Your task to perform on an android device: open app "Move to iOS" (install if not already installed) and enter user name: "Decca@icloud.com" and password: "reabbreviate" Image 0: 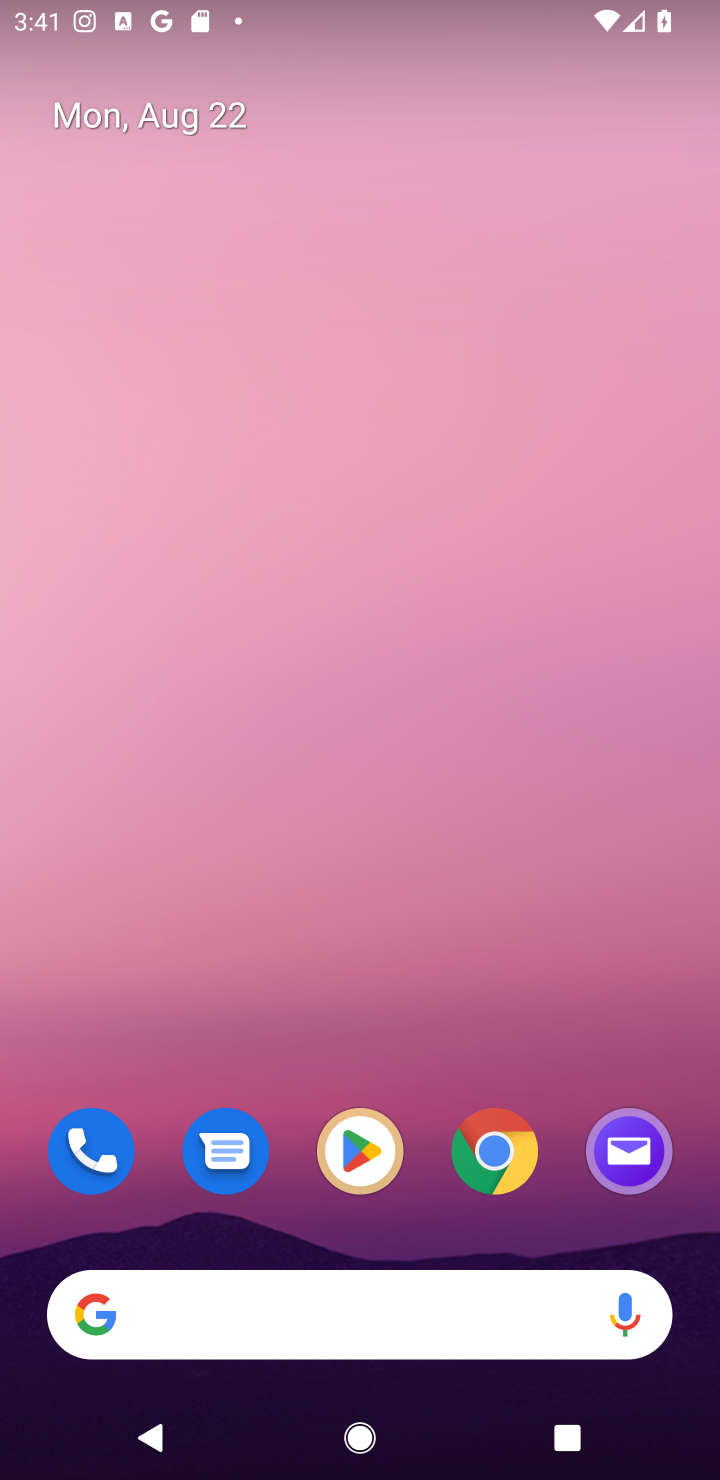
Step 0: press home button
Your task to perform on an android device: open app "Move to iOS" (install if not already installed) and enter user name: "Decca@icloud.com" and password: "reabbreviate" Image 1: 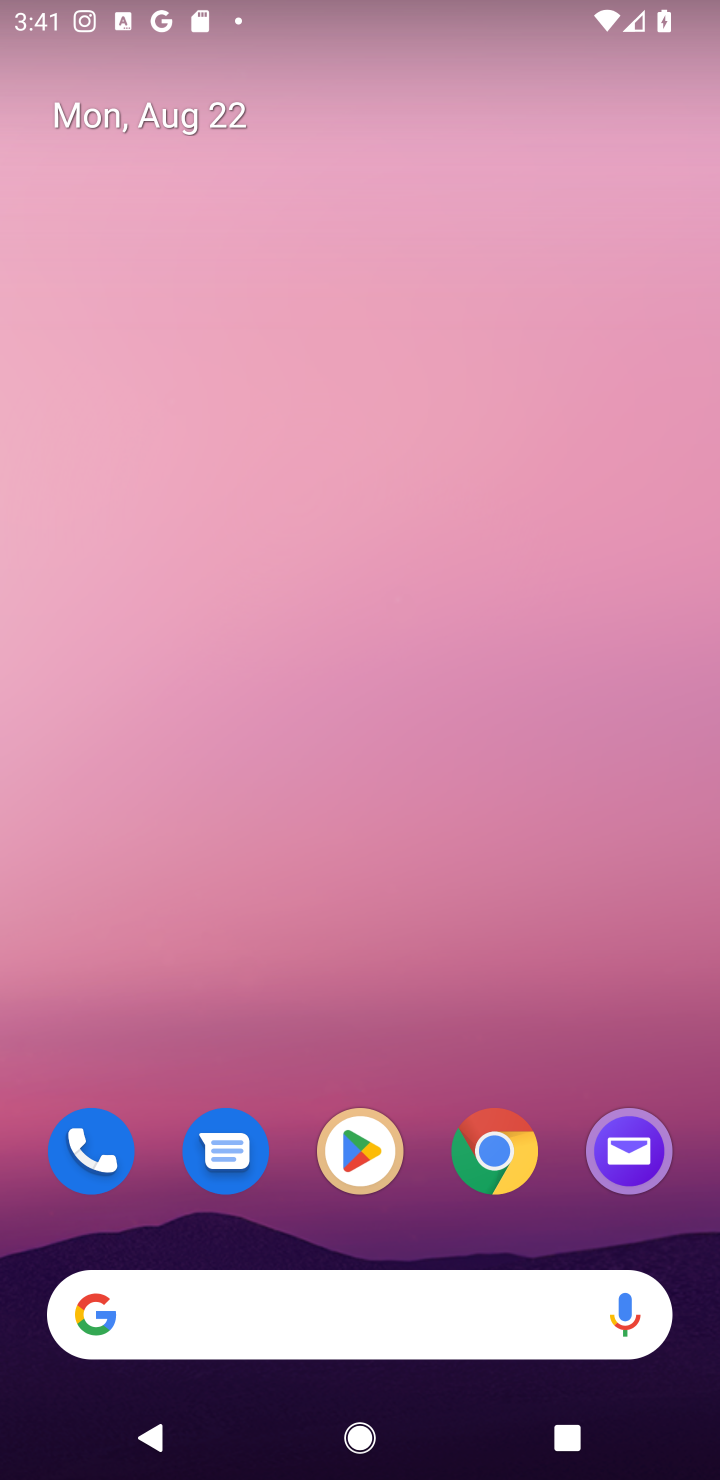
Step 1: click (361, 1152)
Your task to perform on an android device: open app "Move to iOS" (install if not already installed) and enter user name: "Decca@icloud.com" and password: "reabbreviate" Image 2: 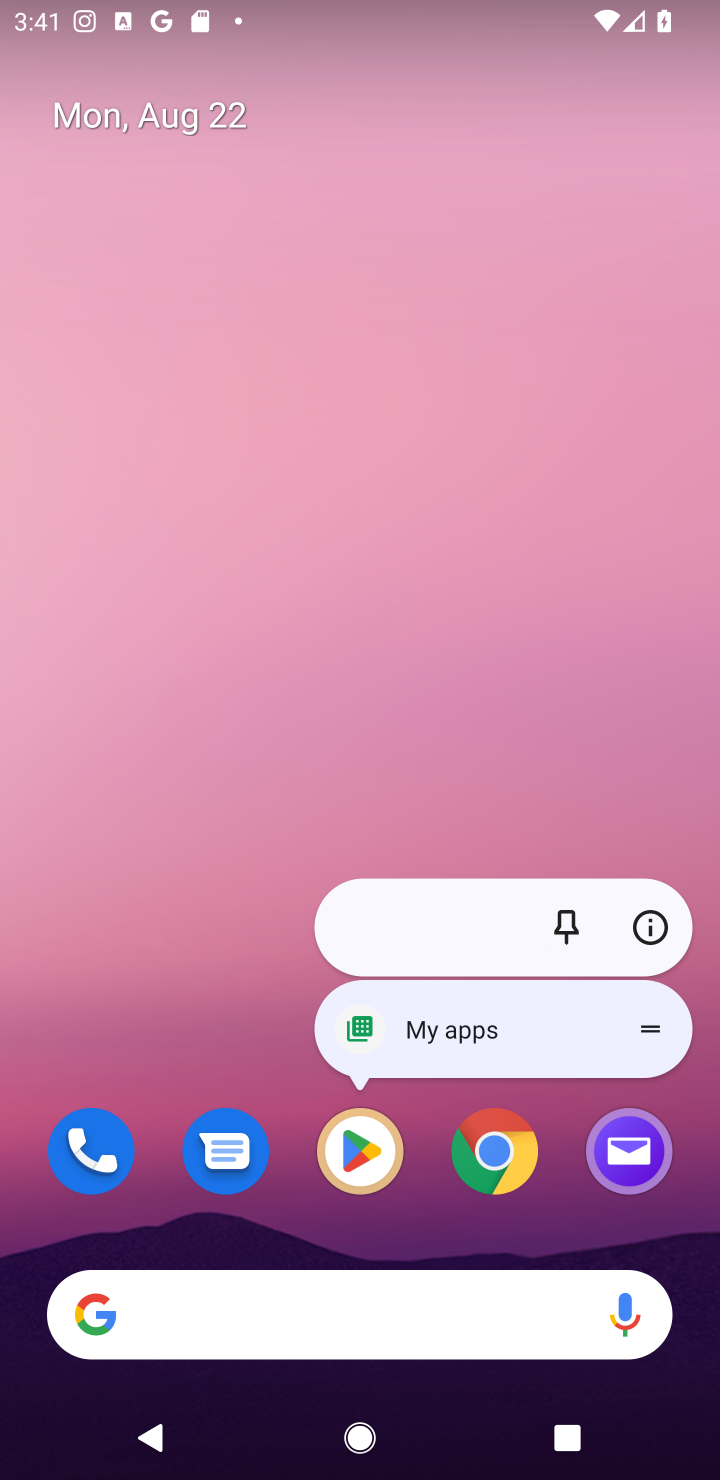
Step 2: click (361, 1152)
Your task to perform on an android device: open app "Move to iOS" (install if not already installed) and enter user name: "Decca@icloud.com" and password: "reabbreviate" Image 3: 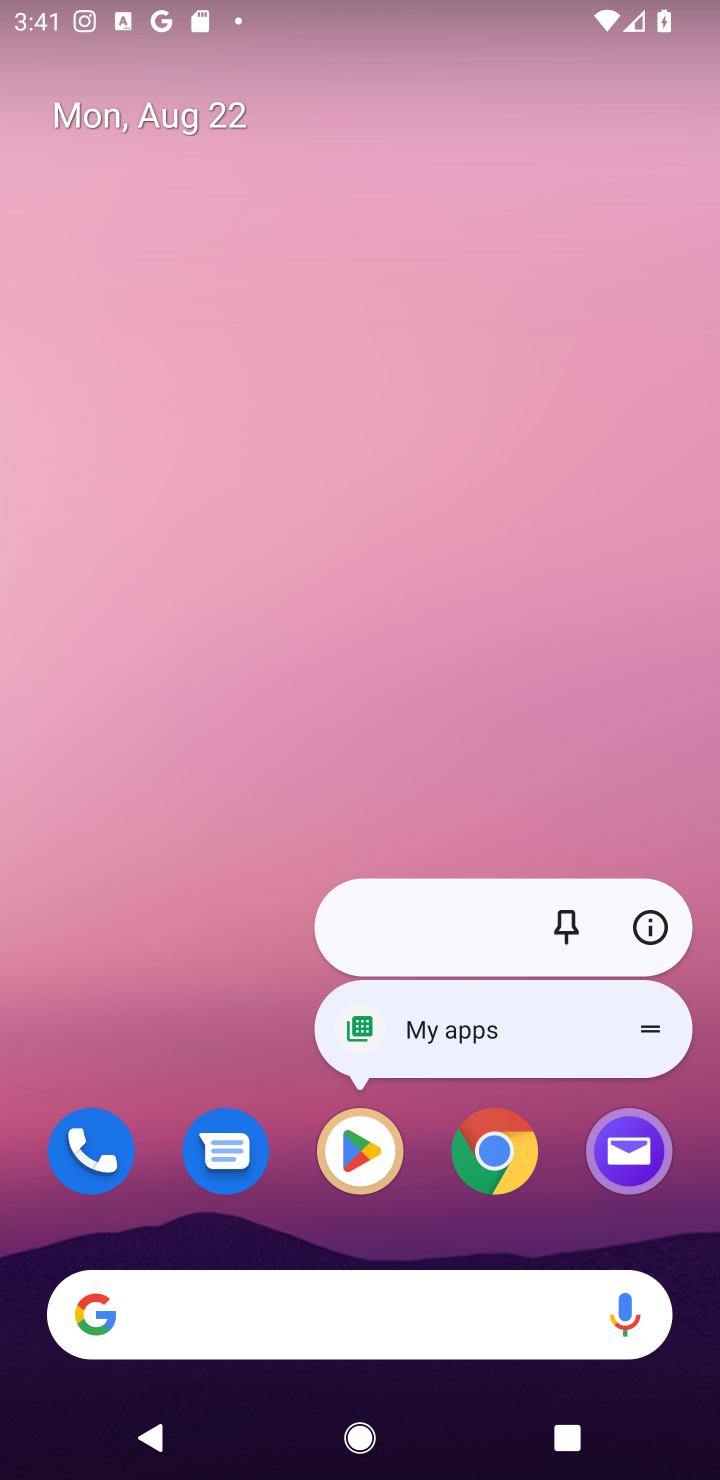
Step 3: click (361, 1152)
Your task to perform on an android device: open app "Move to iOS" (install if not already installed) and enter user name: "Decca@icloud.com" and password: "reabbreviate" Image 4: 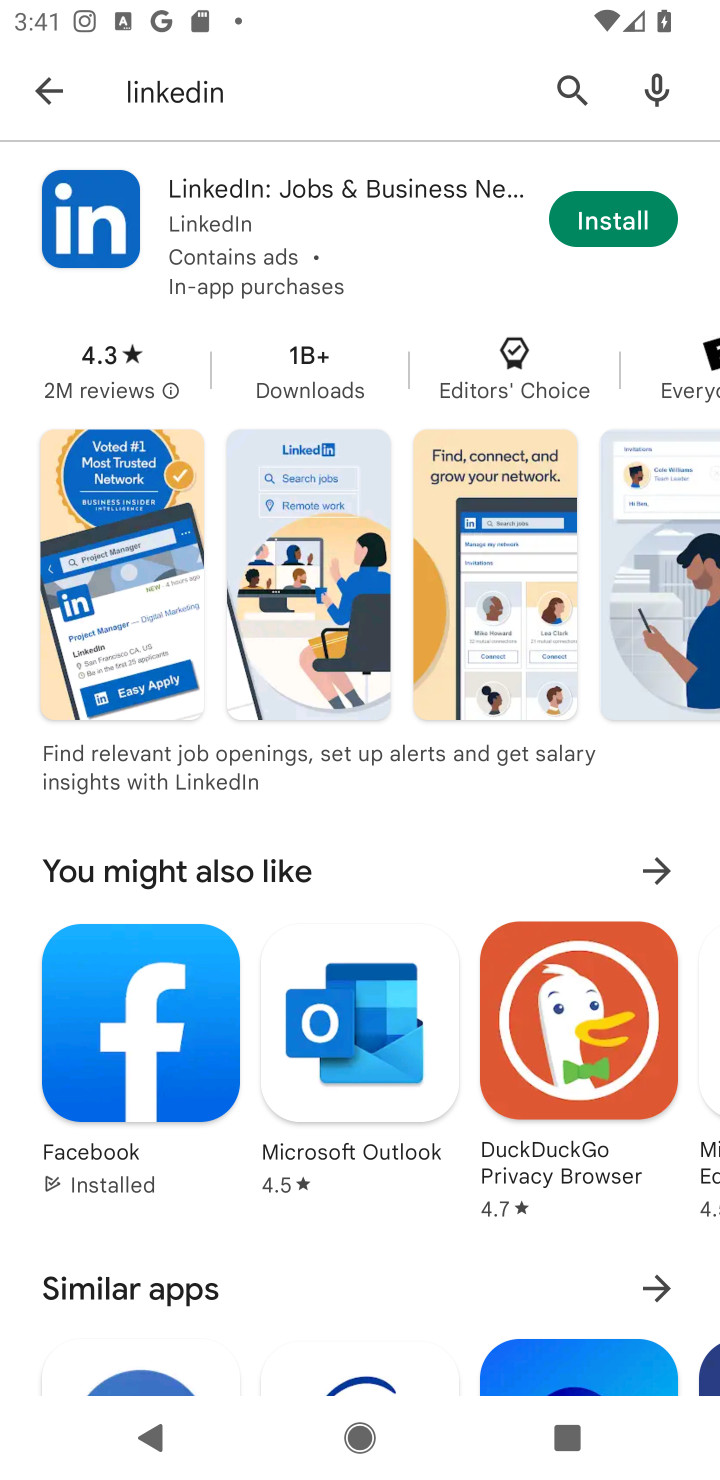
Step 4: click (577, 84)
Your task to perform on an android device: open app "Move to iOS" (install if not already installed) and enter user name: "Decca@icloud.com" and password: "reabbreviate" Image 5: 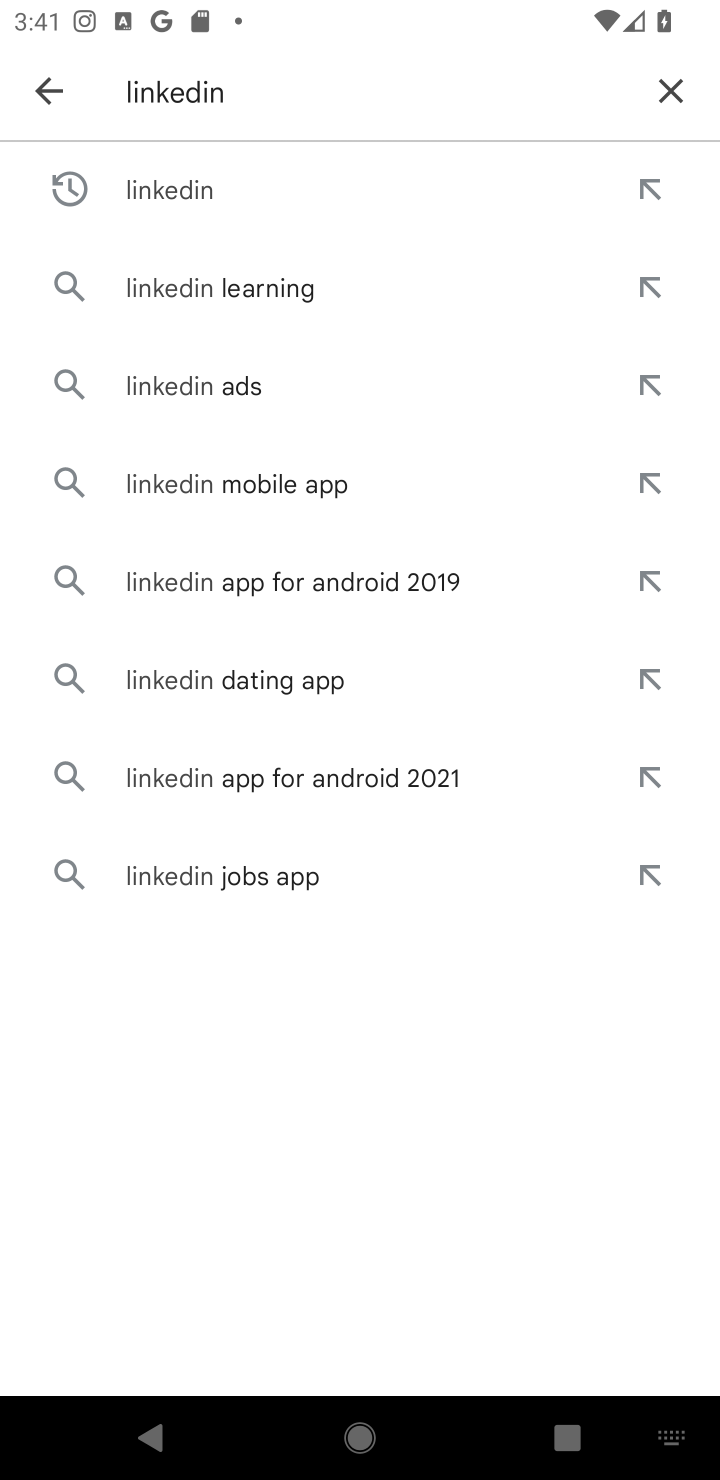
Step 5: click (662, 88)
Your task to perform on an android device: open app "Move to iOS" (install if not already installed) and enter user name: "Decca@icloud.com" and password: "reabbreviate" Image 6: 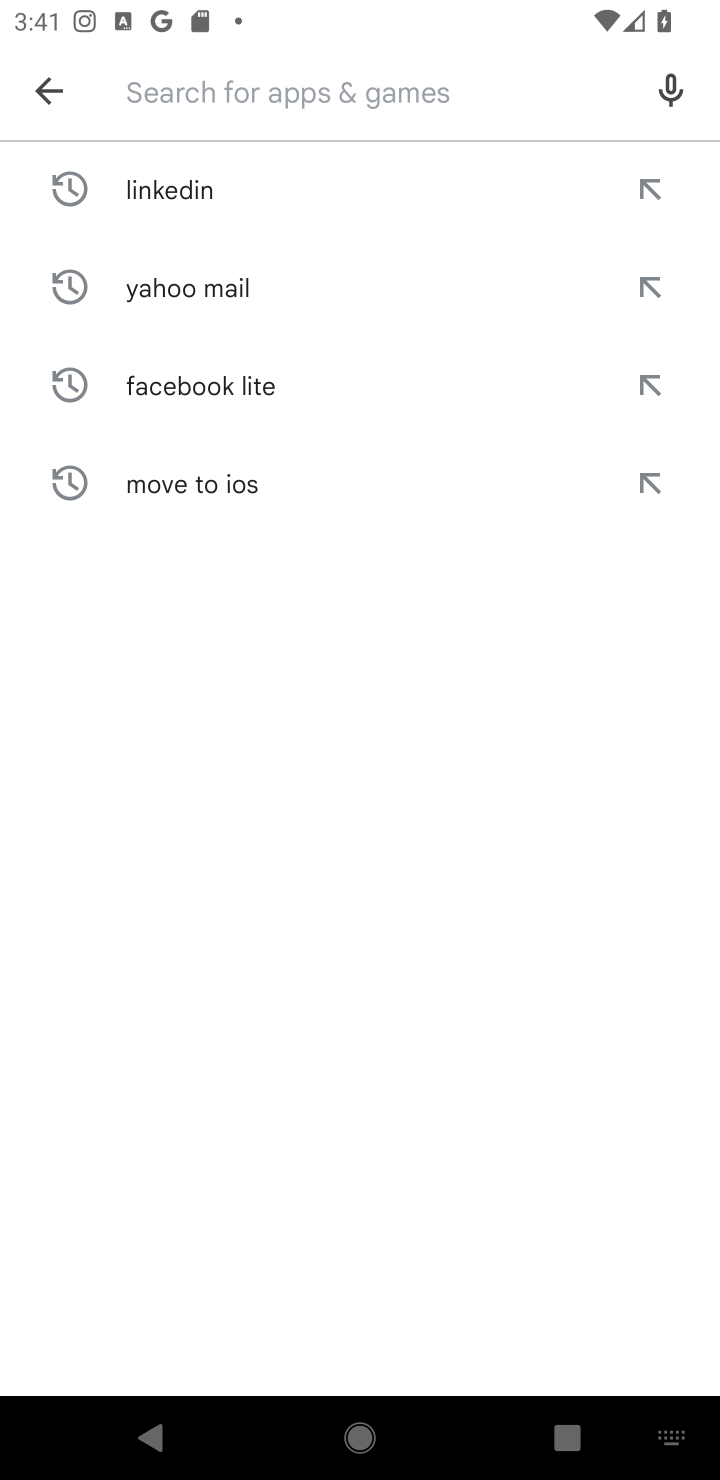
Step 6: type "Move to iOS"
Your task to perform on an android device: open app "Move to iOS" (install if not already installed) and enter user name: "Decca@icloud.com" and password: "reabbreviate" Image 7: 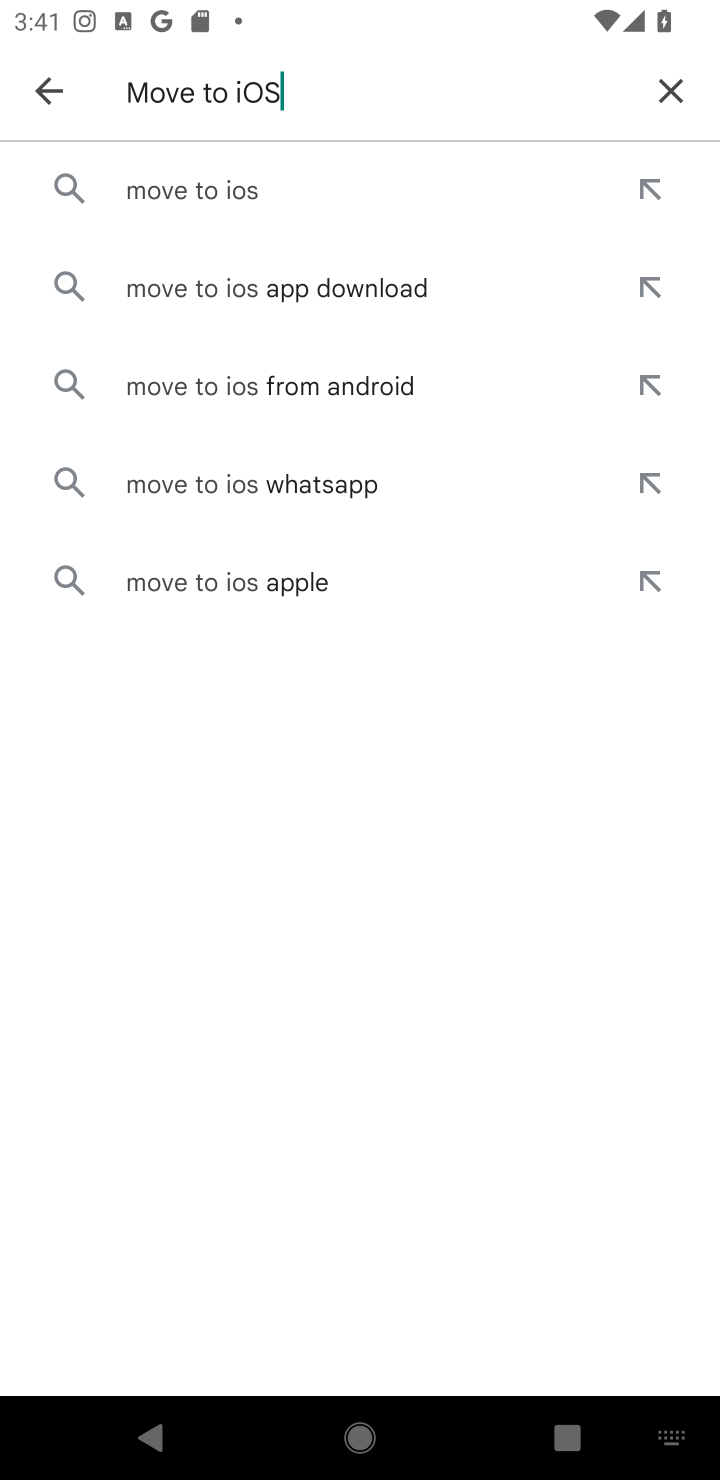
Step 7: click (181, 184)
Your task to perform on an android device: open app "Move to iOS" (install if not already installed) and enter user name: "Decca@icloud.com" and password: "reabbreviate" Image 8: 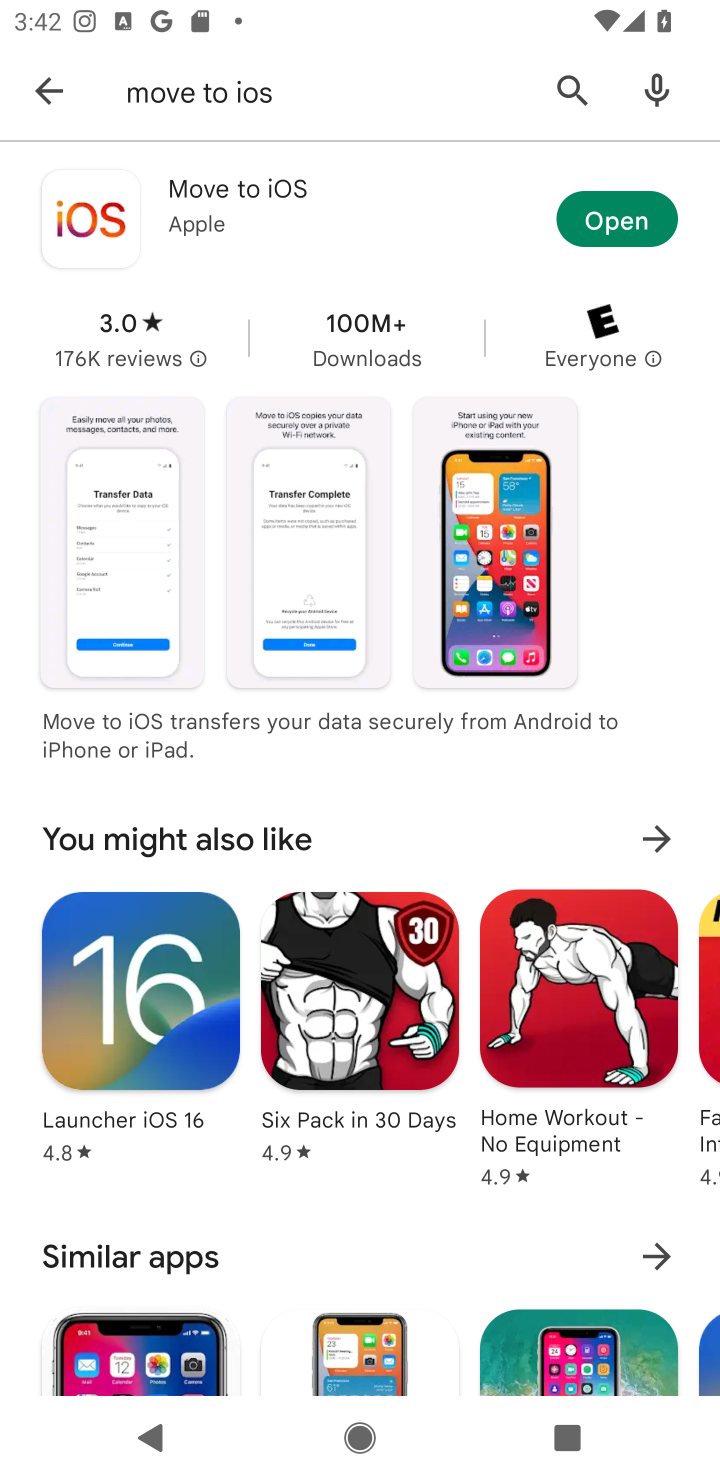
Step 8: click (617, 218)
Your task to perform on an android device: open app "Move to iOS" (install if not already installed) and enter user name: "Decca@icloud.com" and password: "reabbreviate" Image 9: 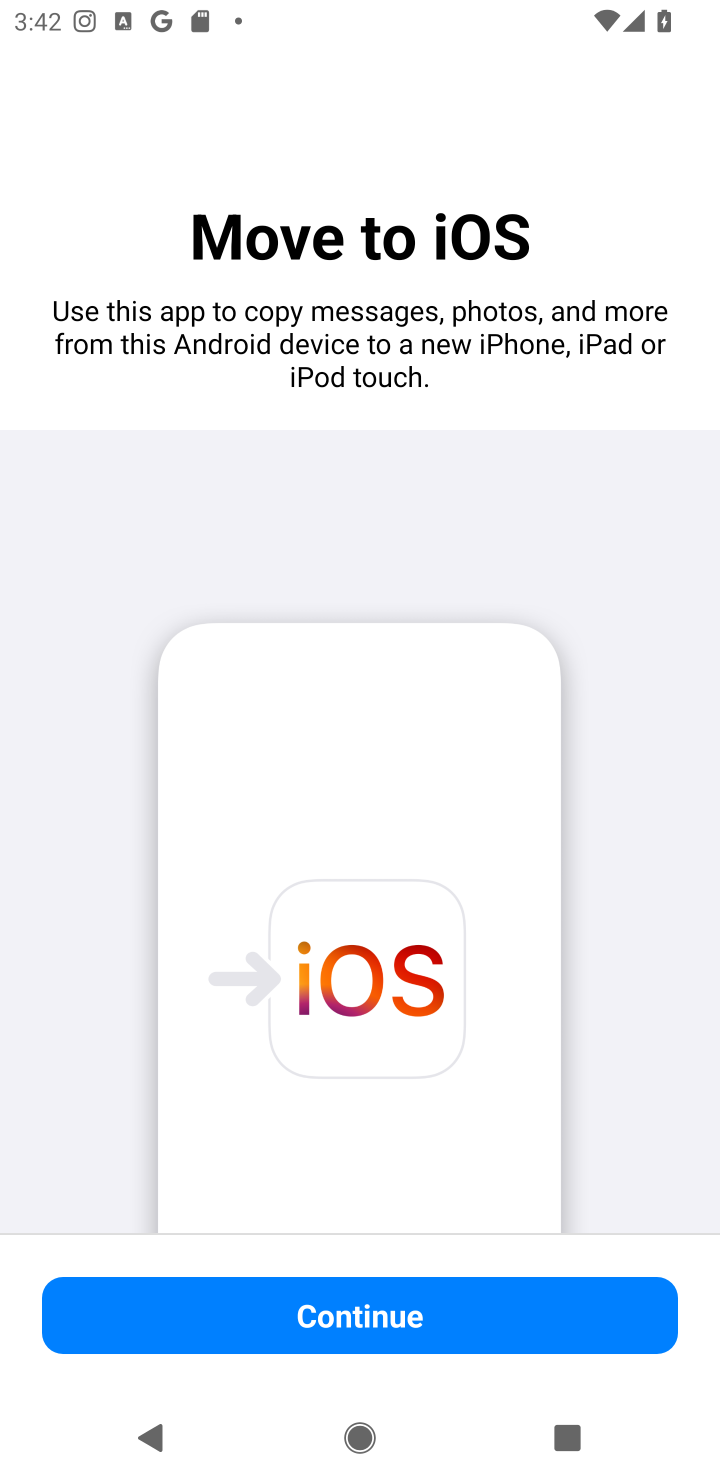
Step 9: click (333, 1310)
Your task to perform on an android device: open app "Move to iOS" (install if not already installed) and enter user name: "Decca@icloud.com" and password: "reabbreviate" Image 10: 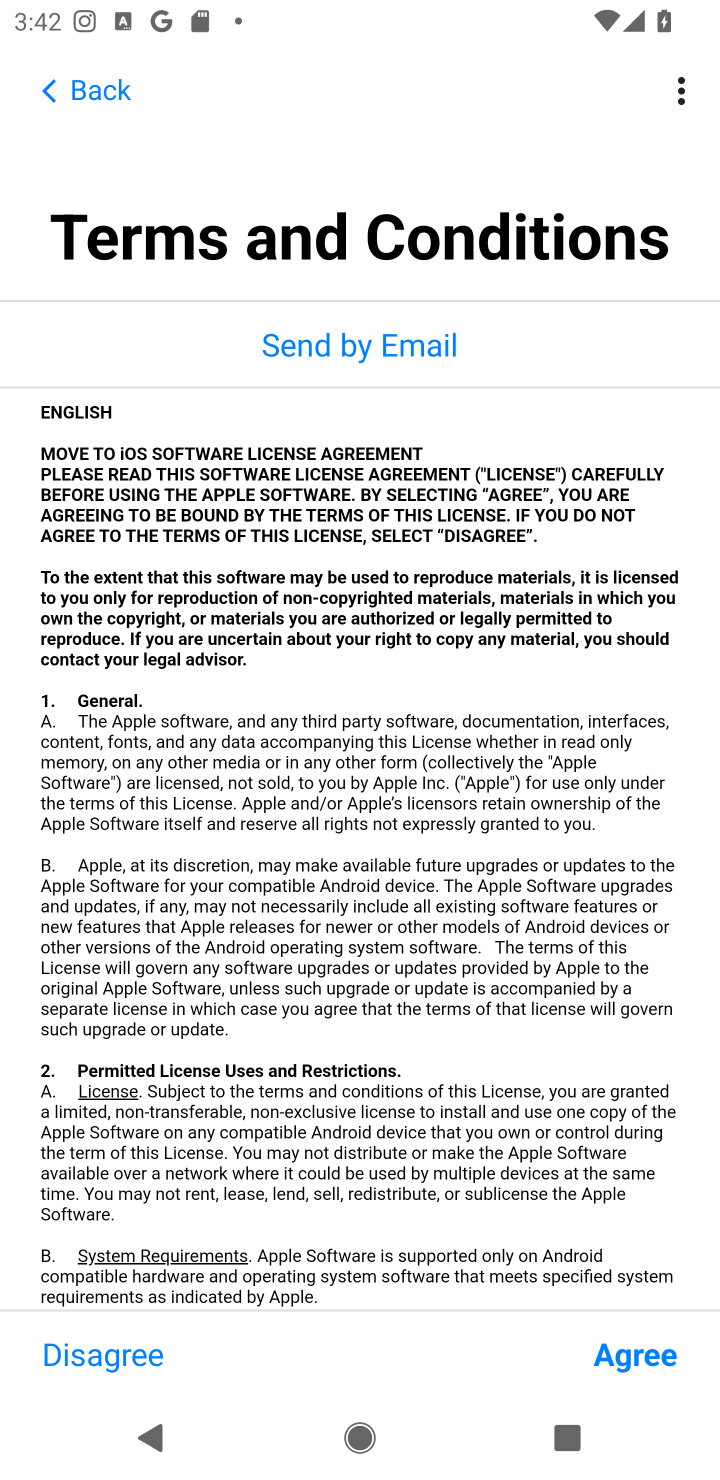
Step 10: click (615, 1348)
Your task to perform on an android device: open app "Move to iOS" (install if not already installed) and enter user name: "Decca@icloud.com" and password: "reabbreviate" Image 11: 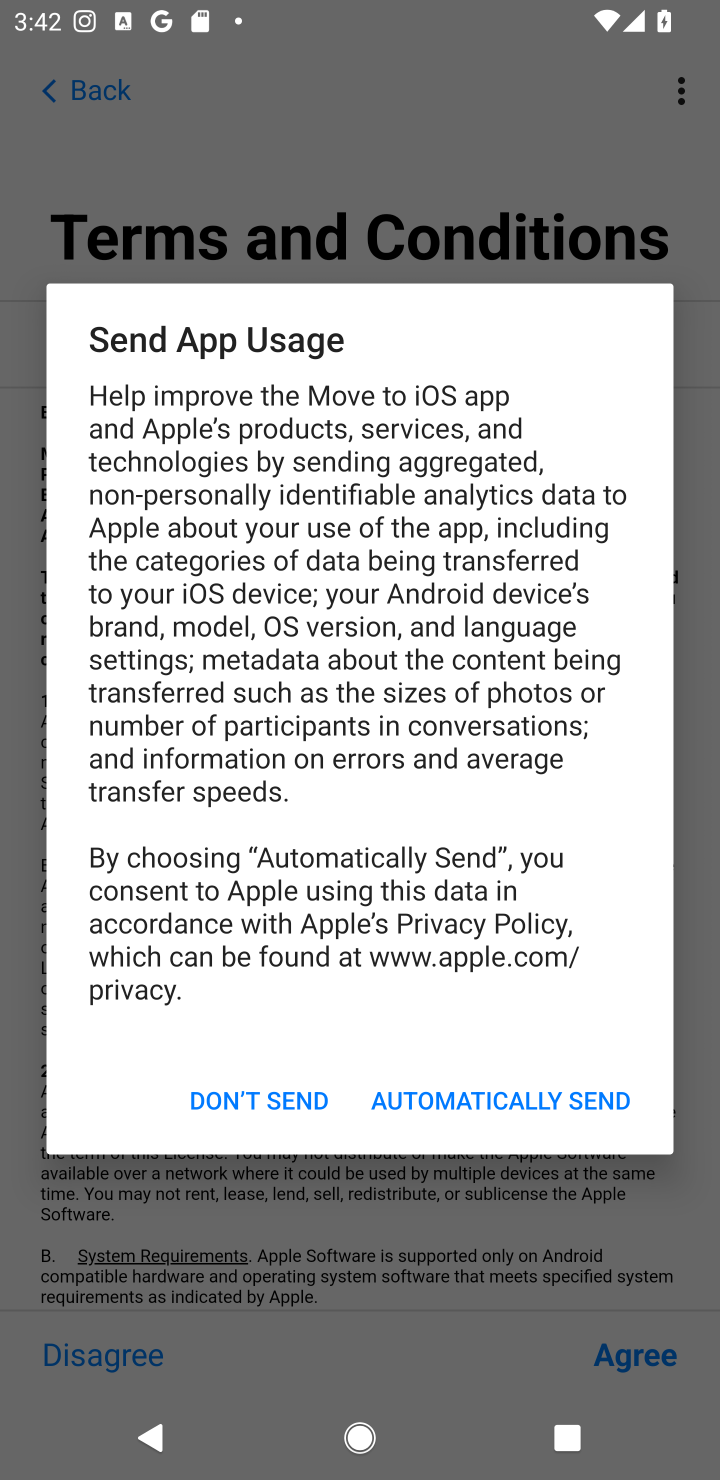
Step 11: click (514, 1123)
Your task to perform on an android device: open app "Move to iOS" (install if not already installed) and enter user name: "Decca@icloud.com" and password: "reabbreviate" Image 12: 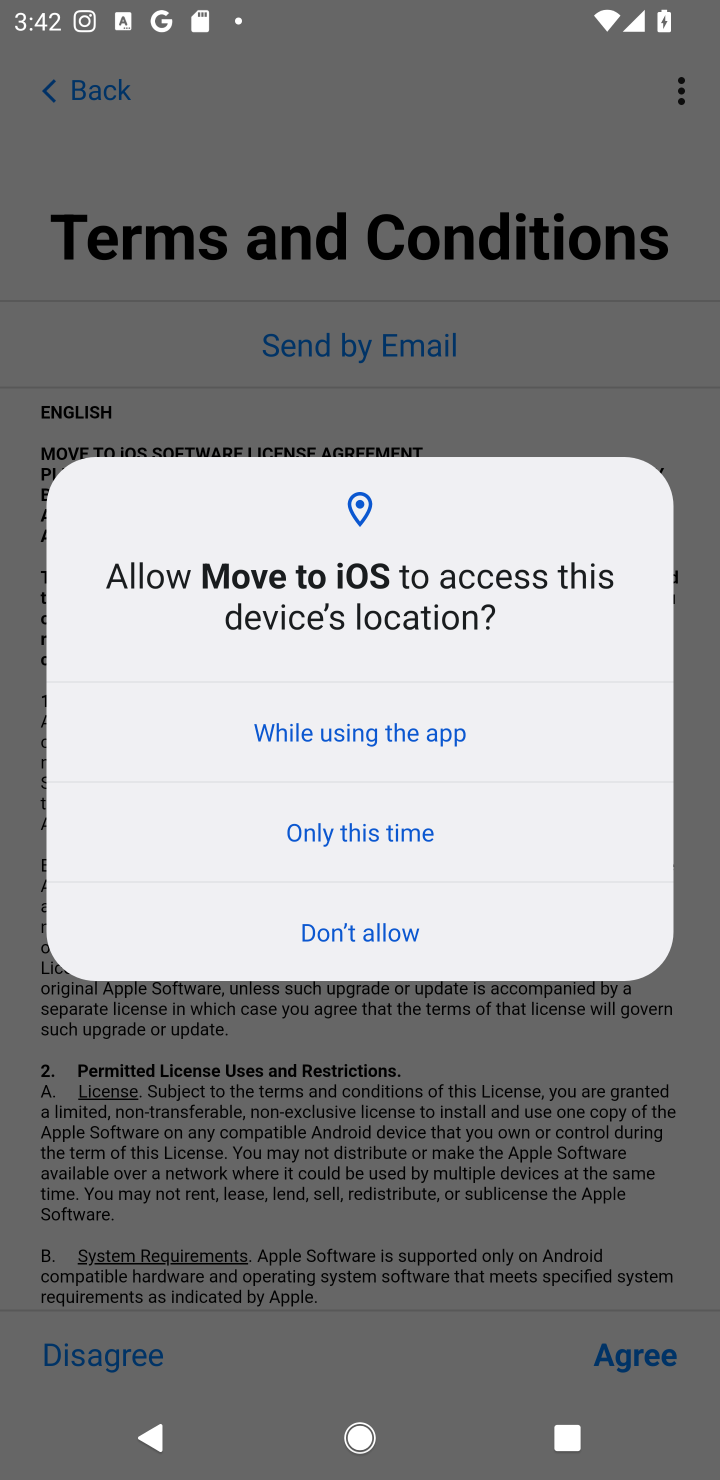
Step 12: click (354, 834)
Your task to perform on an android device: open app "Move to iOS" (install if not already installed) and enter user name: "Decca@icloud.com" and password: "reabbreviate" Image 13: 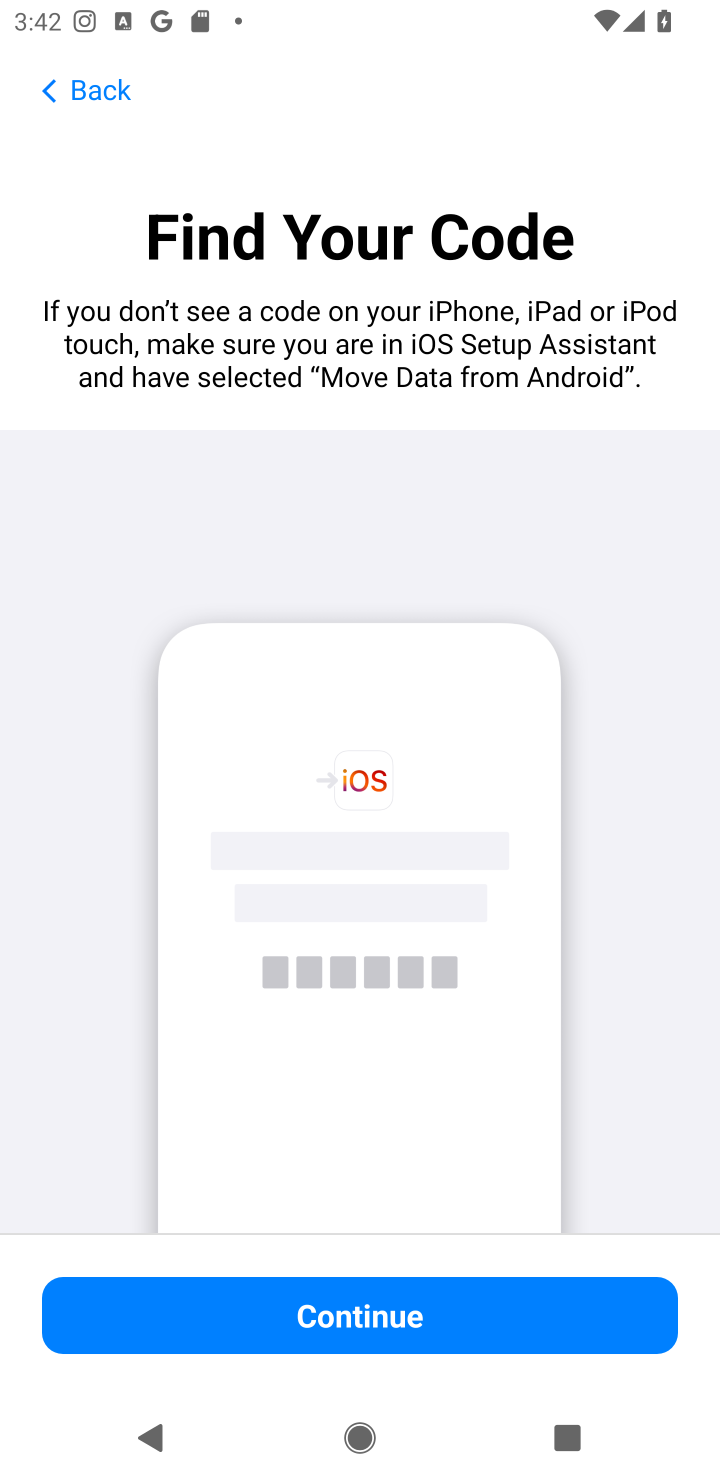
Step 13: click (526, 1324)
Your task to perform on an android device: open app "Move to iOS" (install if not already installed) and enter user name: "Decca@icloud.com" and password: "reabbreviate" Image 14: 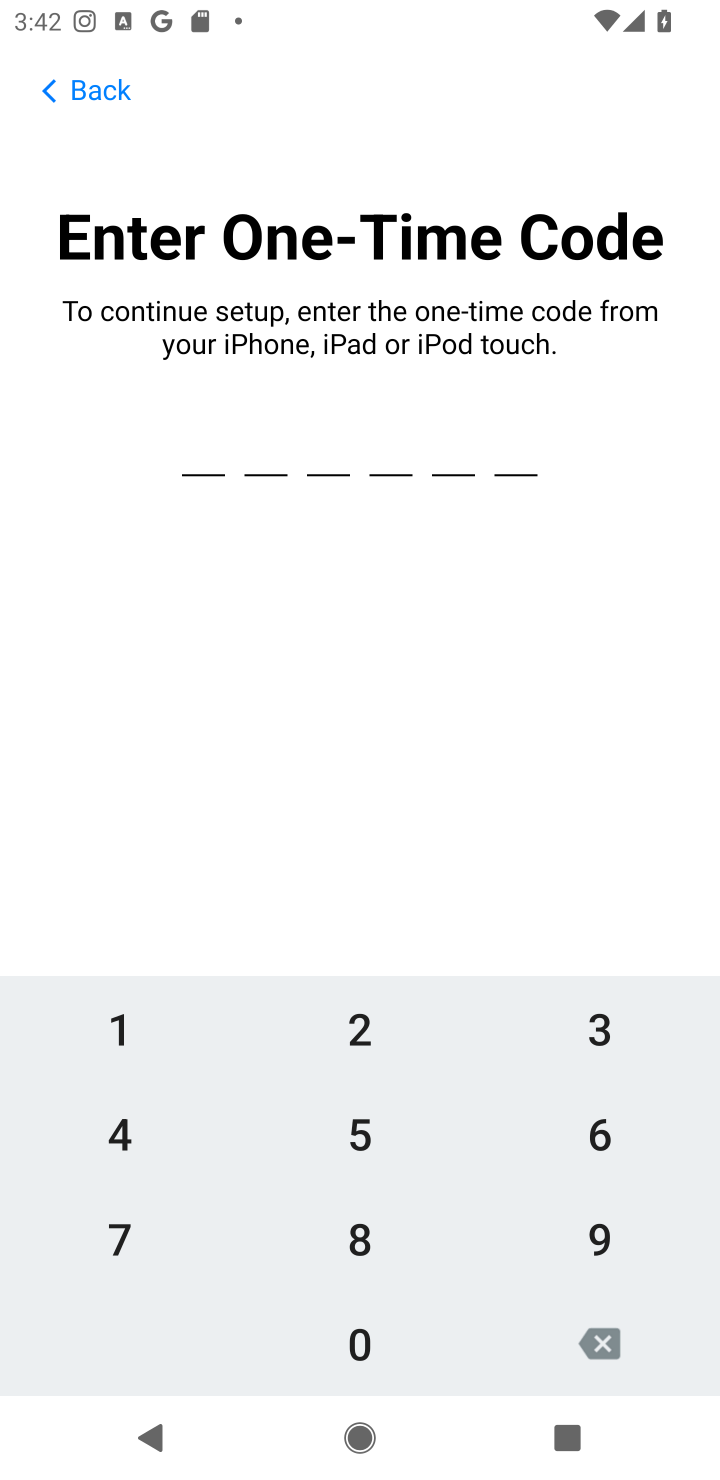
Step 14: task complete